Your task to perform on an android device: turn off data saver in the chrome app Image 0: 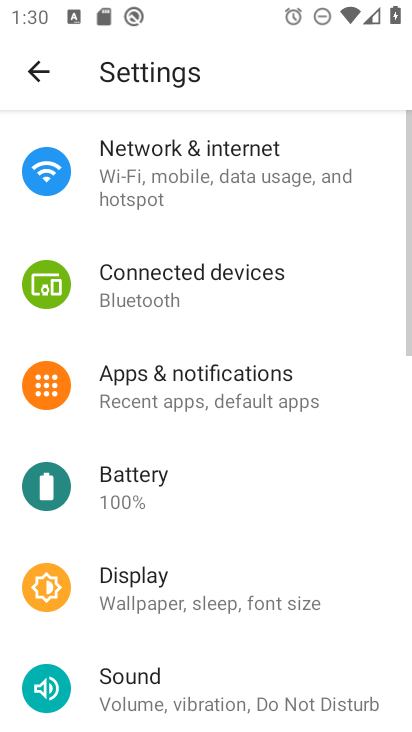
Step 0: press home button
Your task to perform on an android device: turn off data saver in the chrome app Image 1: 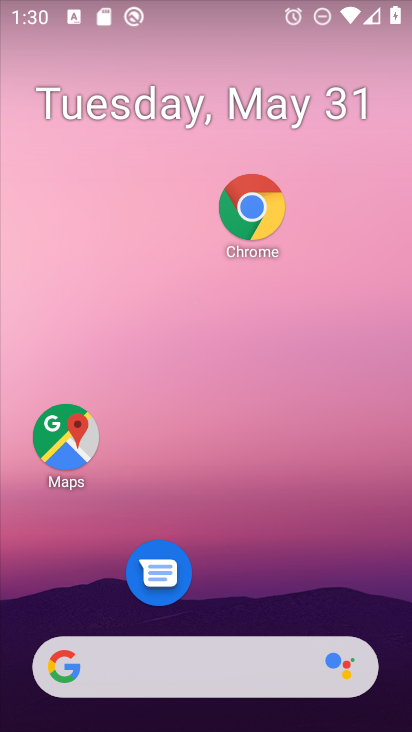
Step 1: drag from (245, 533) to (263, 275)
Your task to perform on an android device: turn off data saver in the chrome app Image 2: 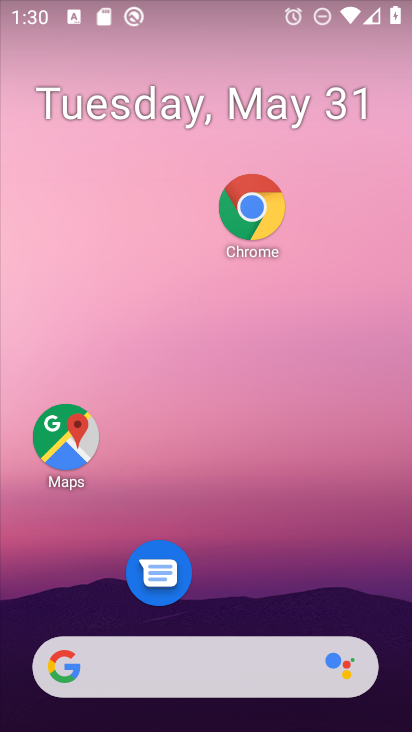
Step 2: click (253, 221)
Your task to perform on an android device: turn off data saver in the chrome app Image 3: 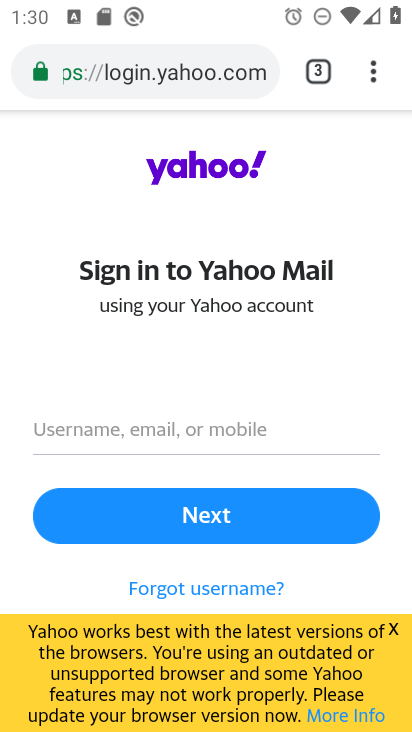
Step 3: click (375, 78)
Your task to perform on an android device: turn off data saver in the chrome app Image 4: 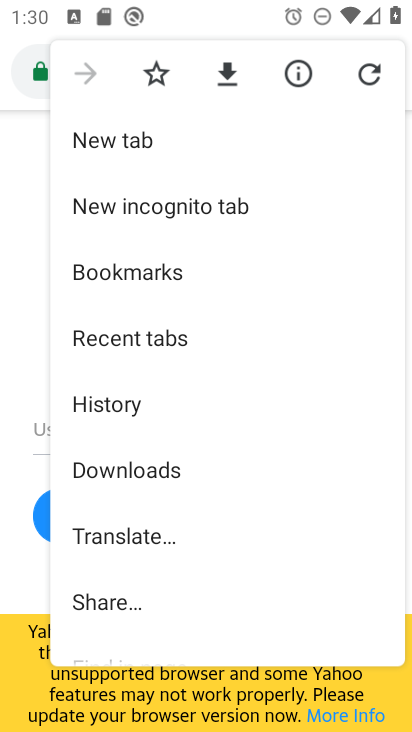
Step 4: drag from (149, 477) to (187, 231)
Your task to perform on an android device: turn off data saver in the chrome app Image 5: 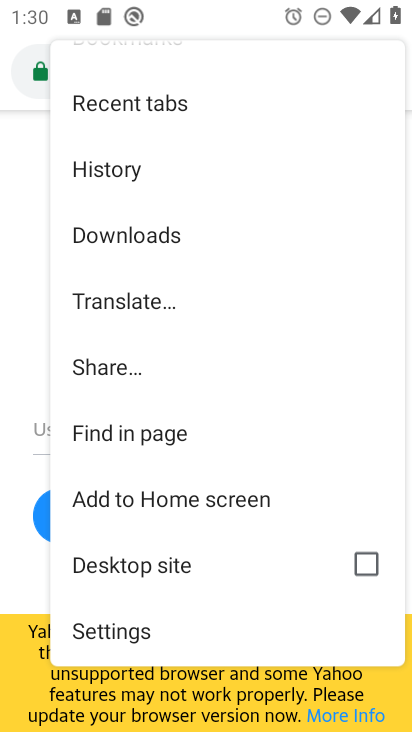
Step 5: click (141, 630)
Your task to perform on an android device: turn off data saver in the chrome app Image 6: 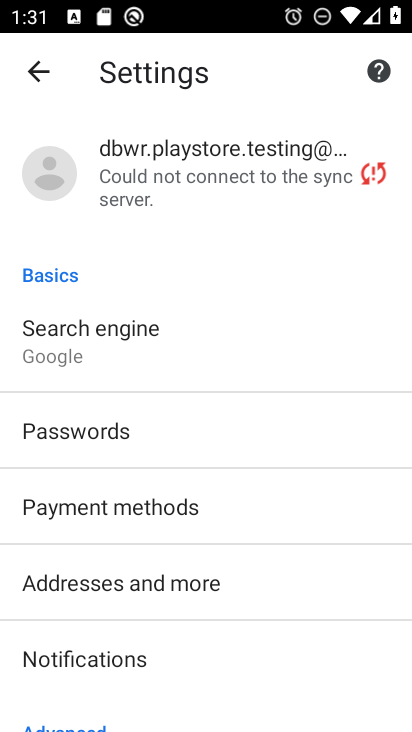
Step 6: drag from (143, 632) to (182, 440)
Your task to perform on an android device: turn off data saver in the chrome app Image 7: 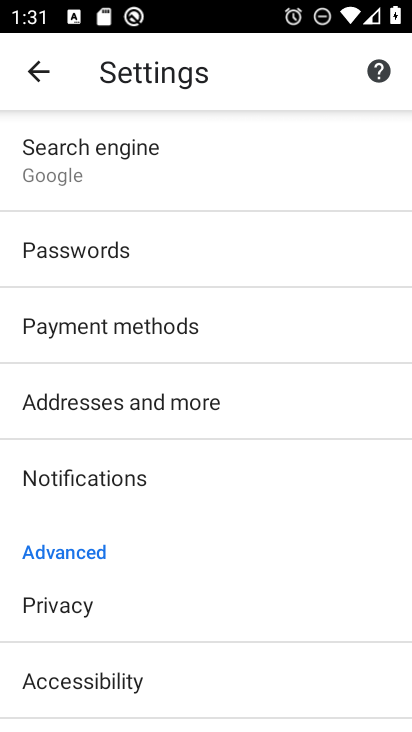
Step 7: drag from (131, 600) to (190, 368)
Your task to perform on an android device: turn off data saver in the chrome app Image 8: 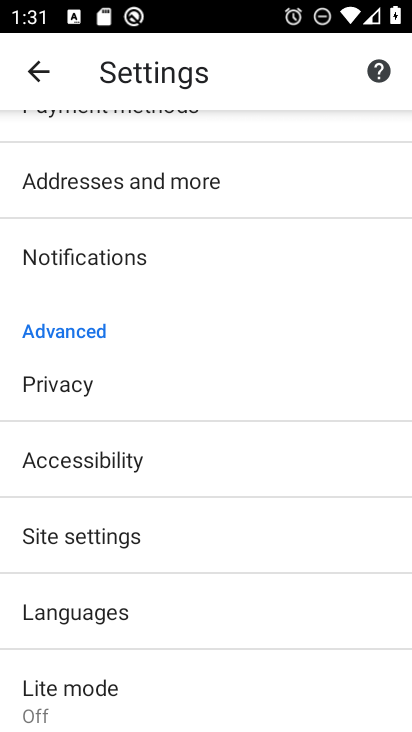
Step 8: click (119, 692)
Your task to perform on an android device: turn off data saver in the chrome app Image 9: 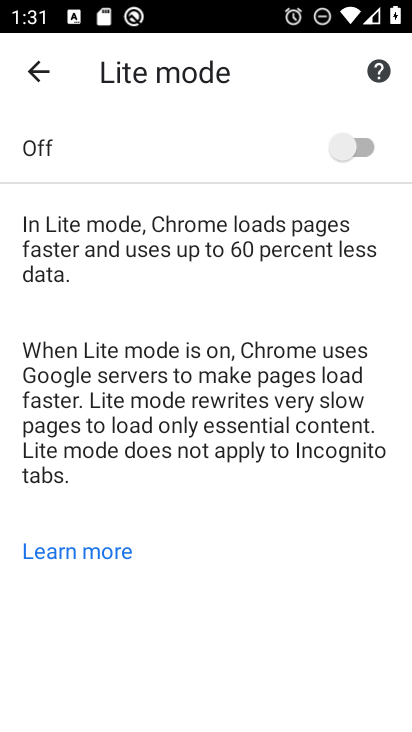
Step 9: task complete